Your task to perform on an android device: uninstall "Spotify" Image 0: 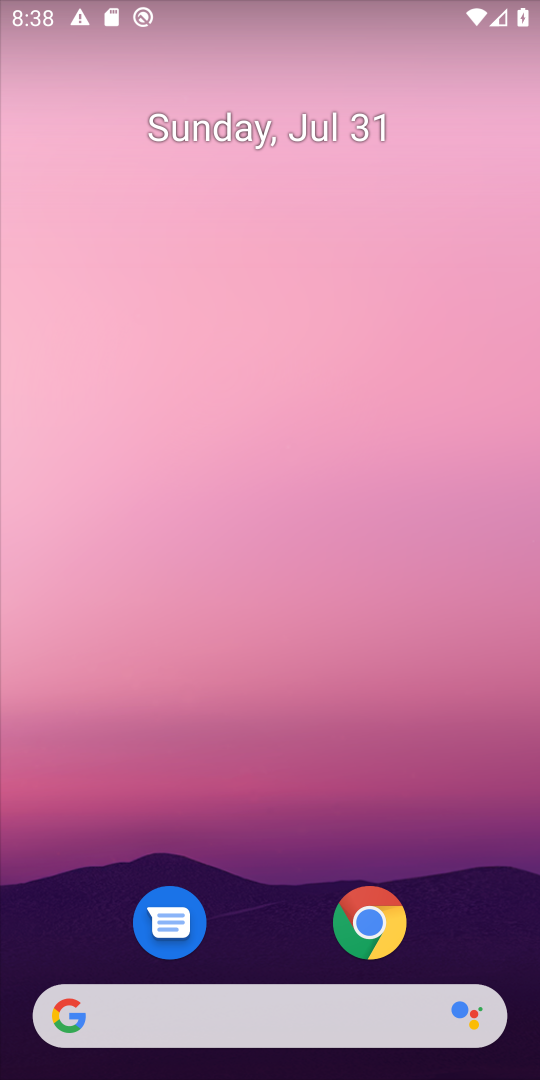
Step 0: drag from (258, 1060) to (267, 169)
Your task to perform on an android device: uninstall "Spotify" Image 1: 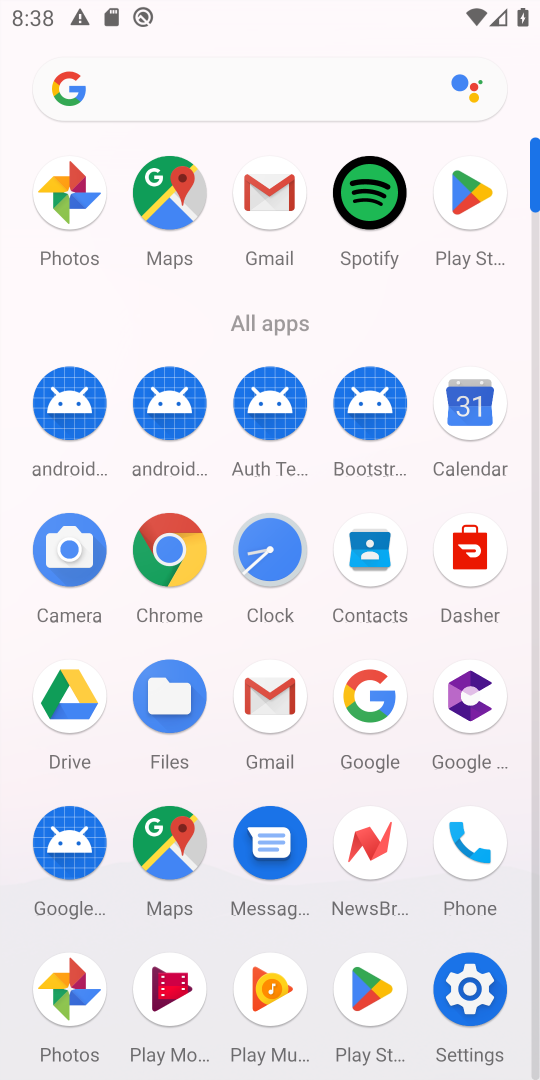
Step 1: click (358, 973)
Your task to perform on an android device: uninstall "Spotify" Image 2: 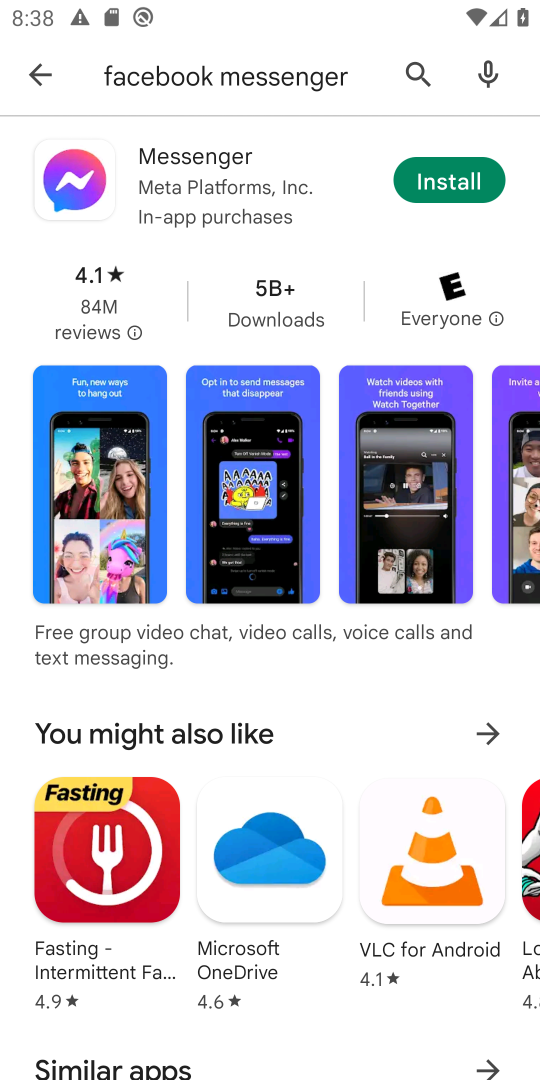
Step 2: click (422, 63)
Your task to perform on an android device: uninstall "Spotify" Image 3: 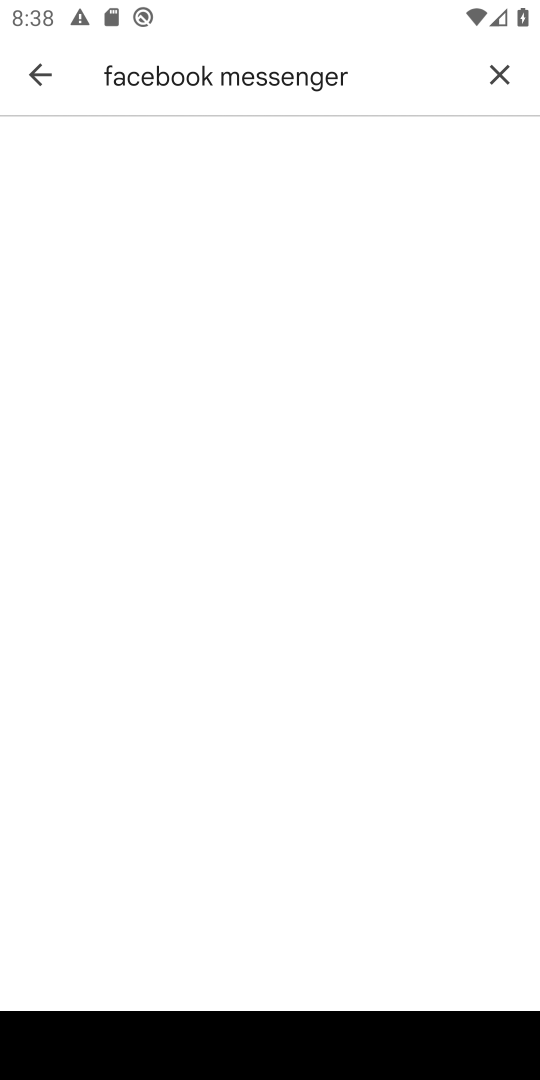
Step 3: click (497, 76)
Your task to perform on an android device: uninstall "Spotify" Image 4: 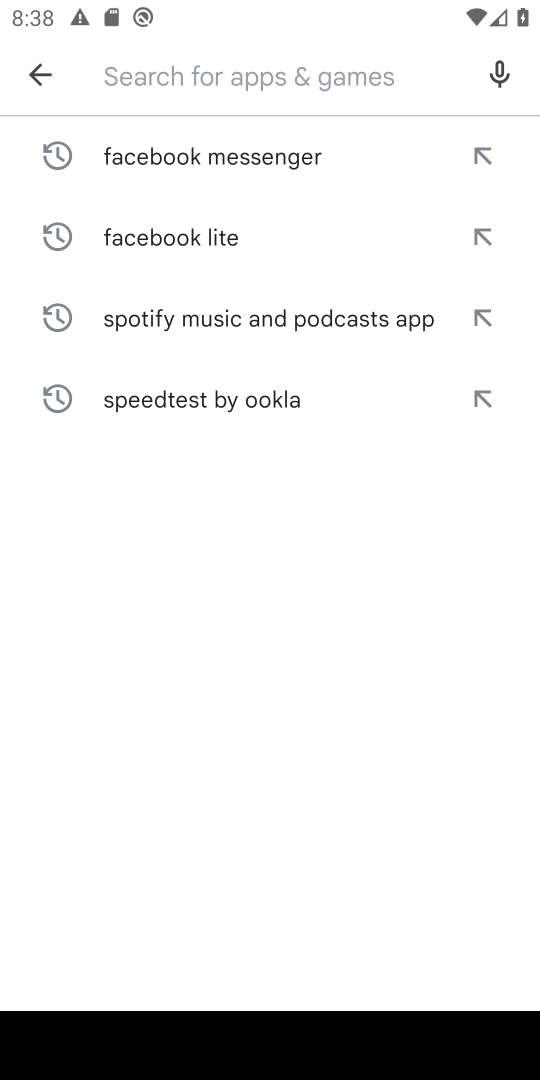
Step 4: type "Spotify"
Your task to perform on an android device: uninstall "Spotify" Image 5: 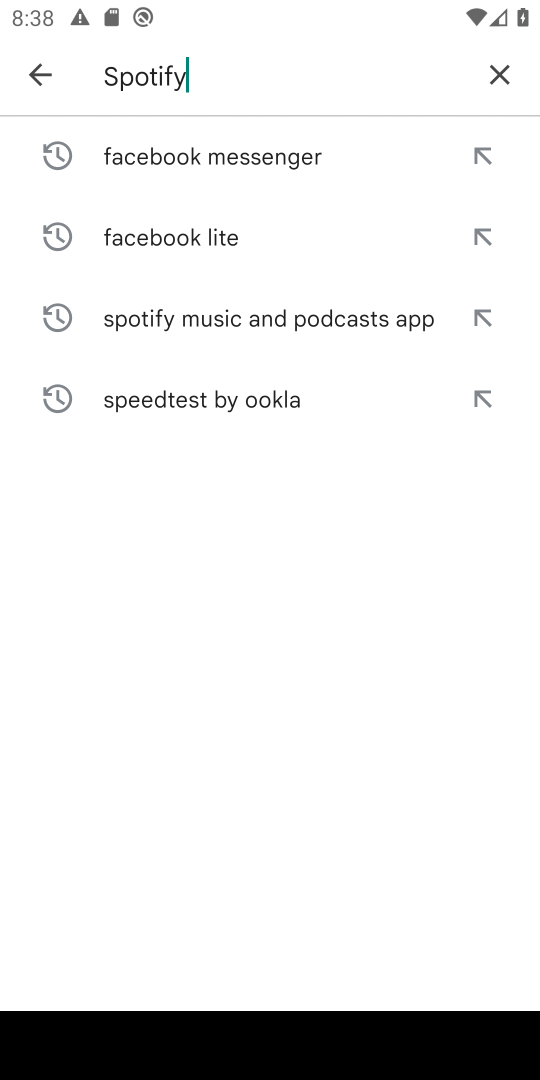
Step 5: type ""
Your task to perform on an android device: uninstall "Spotify" Image 6: 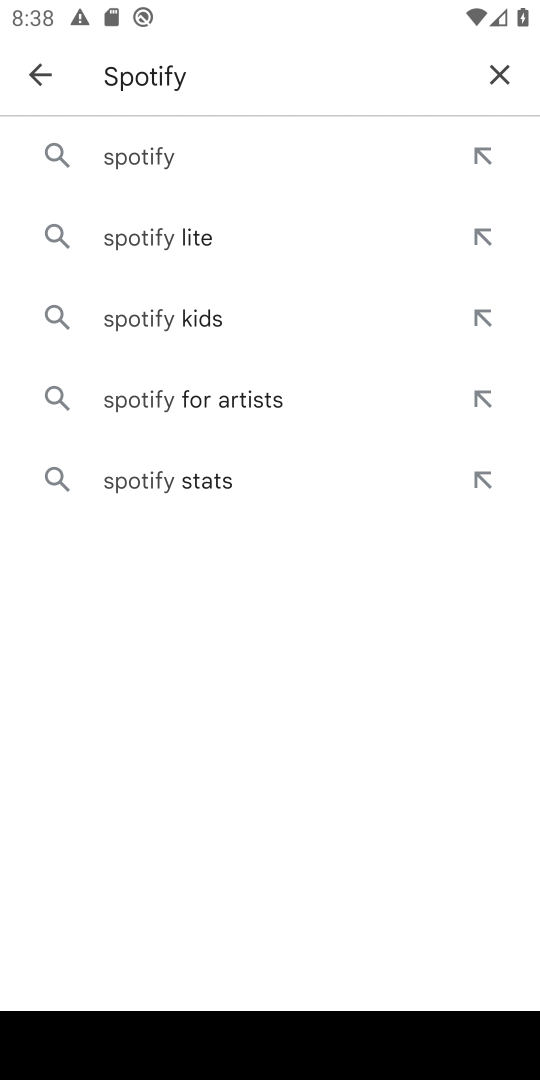
Step 6: click (146, 158)
Your task to perform on an android device: uninstall "Spotify" Image 7: 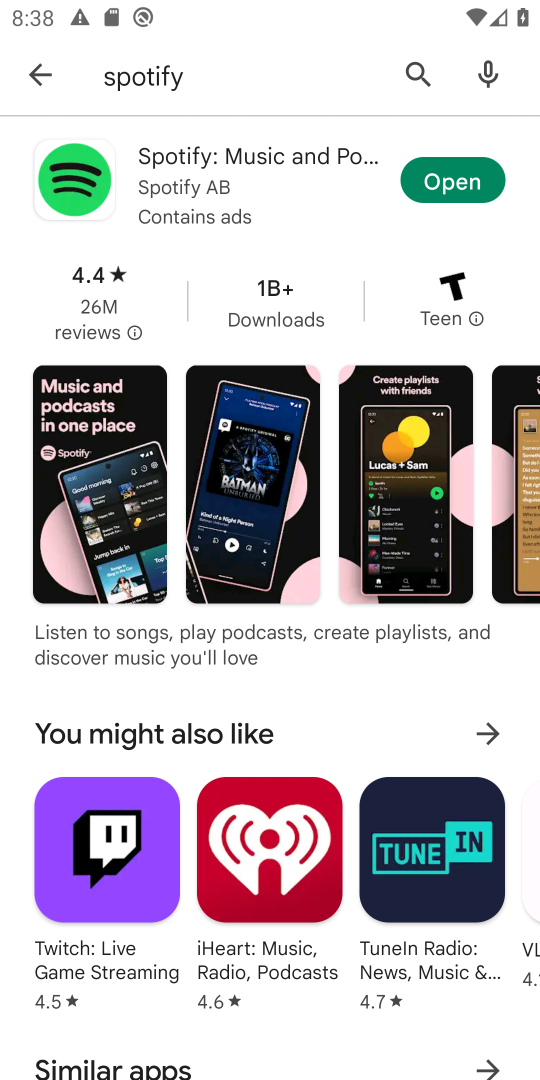
Step 7: click (200, 163)
Your task to perform on an android device: uninstall "Spotify" Image 8: 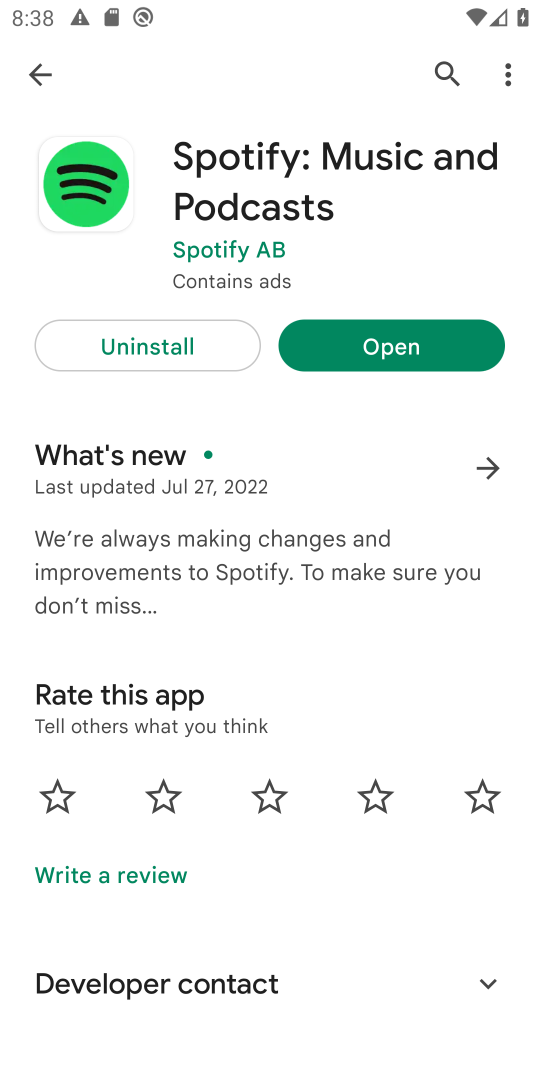
Step 8: click (149, 346)
Your task to perform on an android device: uninstall "Spotify" Image 9: 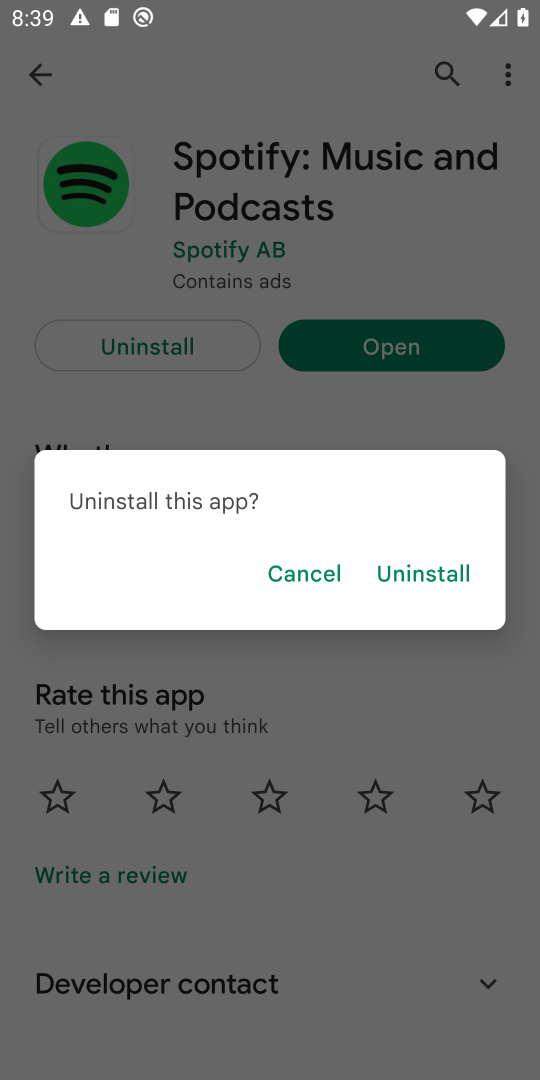
Step 9: click (438, 573)
Your task to perform on an android device: uninstall "Spotify" Image 10: 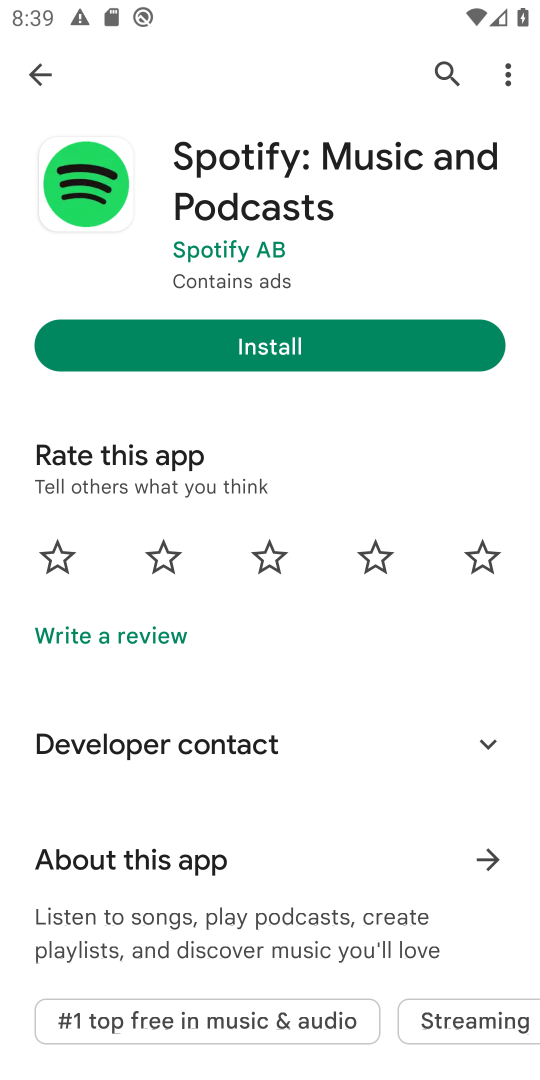
Step 10: task complete